Your task to perform on an android device: Turn off the flashlight Image 0: 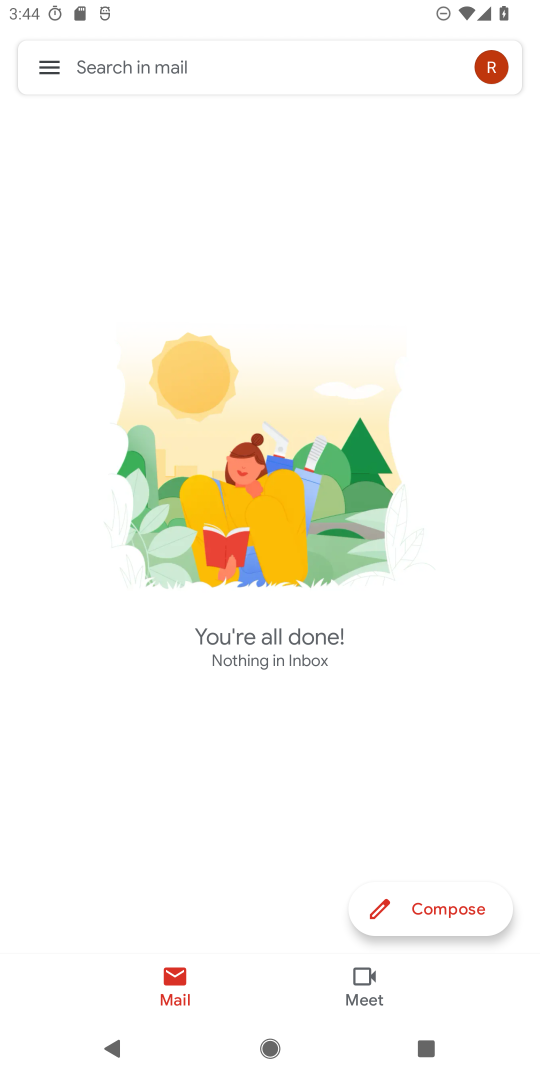
Step 0: press home button
Your task to perform on an android device: Turn off the flashlight Image 1: 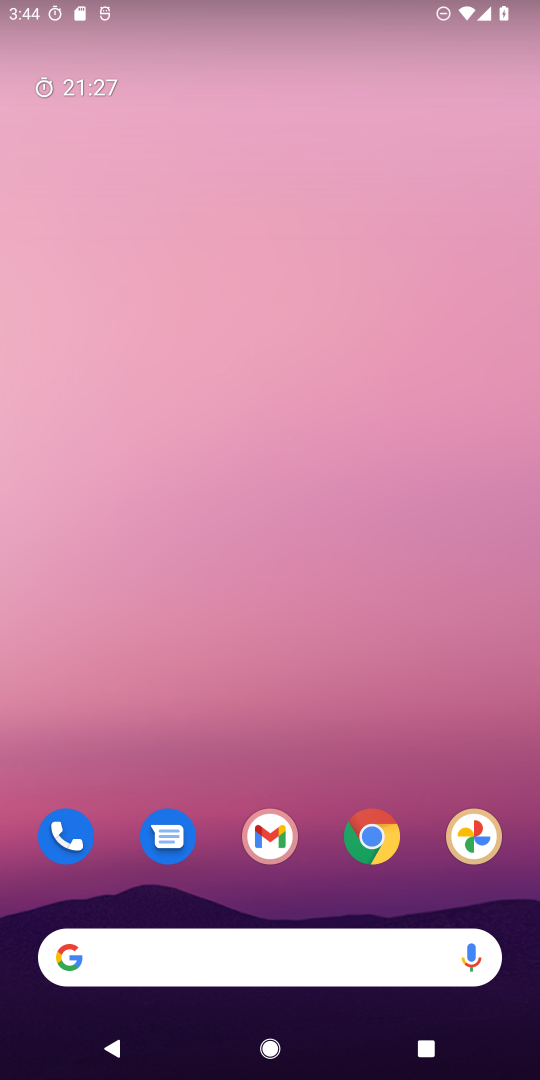
Step 1: drag from (271, 866) to (270, 65)
Your task to perform on an android device: Turn off the flashlight Image 2: 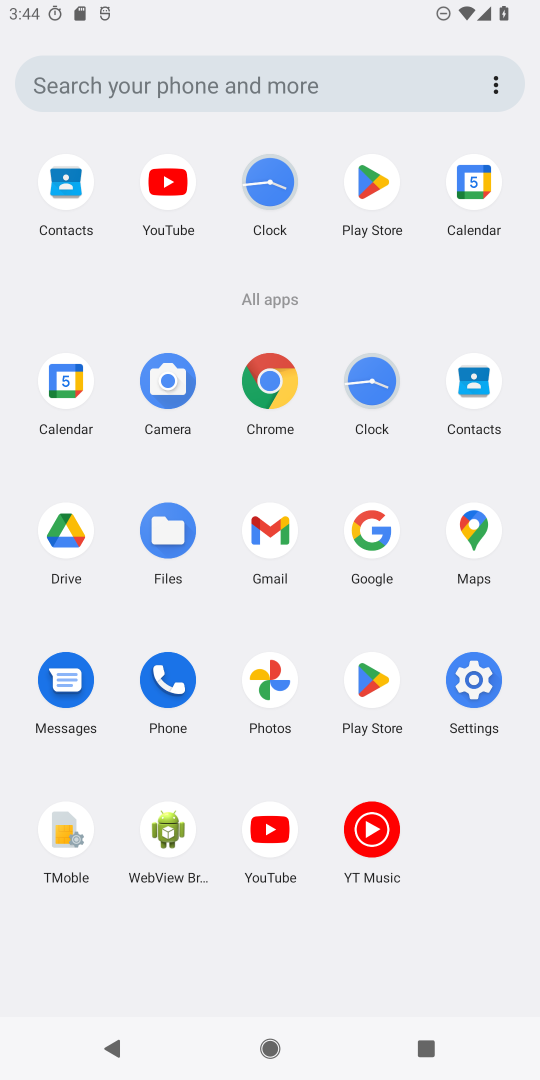
Step 2: click (475, 719)
Your task to perform on an android device: Turn off the flashlight Image 3: 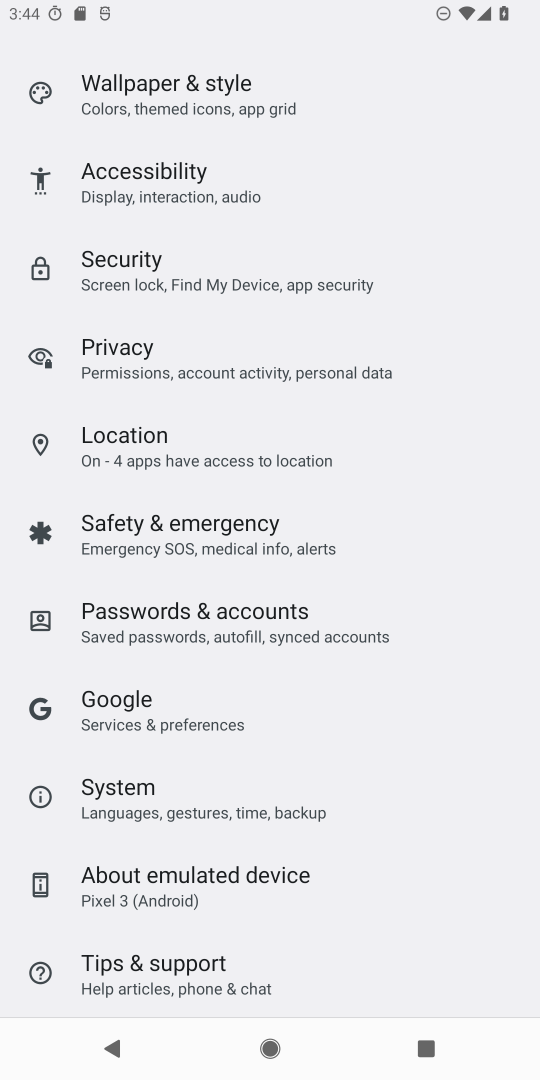
Step 3: drag from (283, 223) to (255, 871)
Your task to perform on an android device: Turn off the flashlight Image 4: 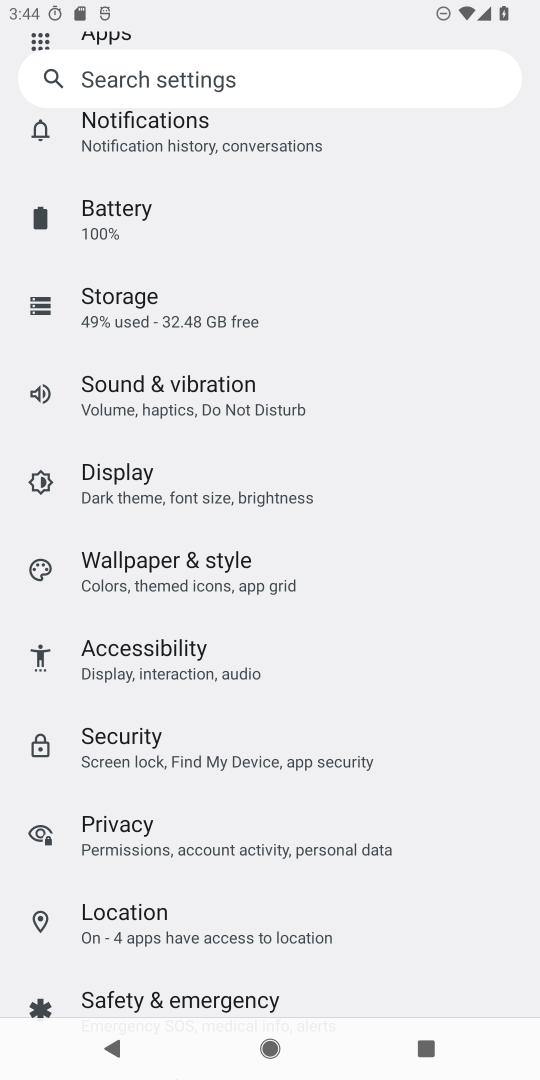
Step 4: click (258, 77)
Your task to perform on an android device: Turn off the flashlight Image 5: 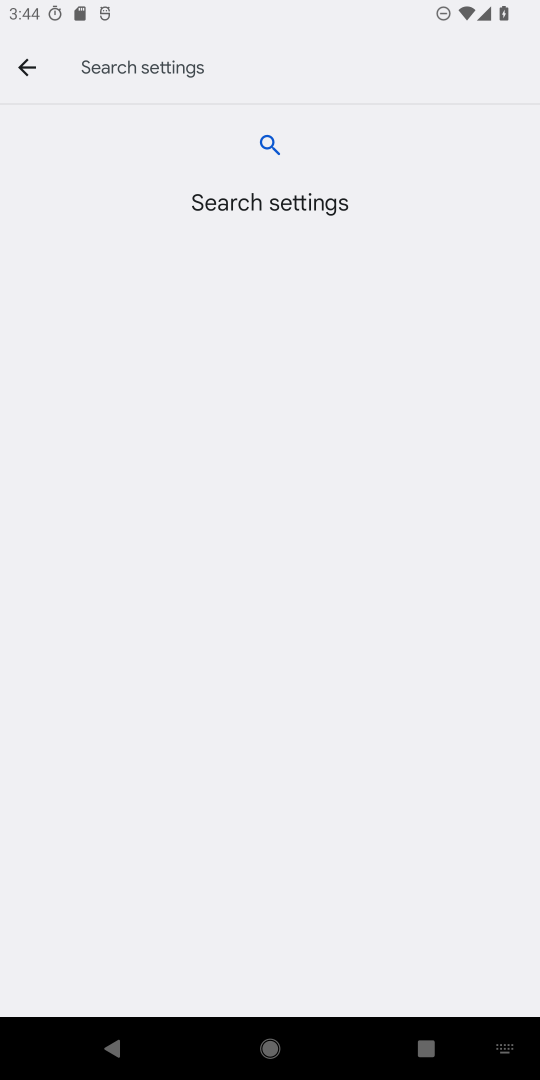
Step 5: type "flashlight"
Your task to perform on an android device: Turn off the flashlight Image 6: 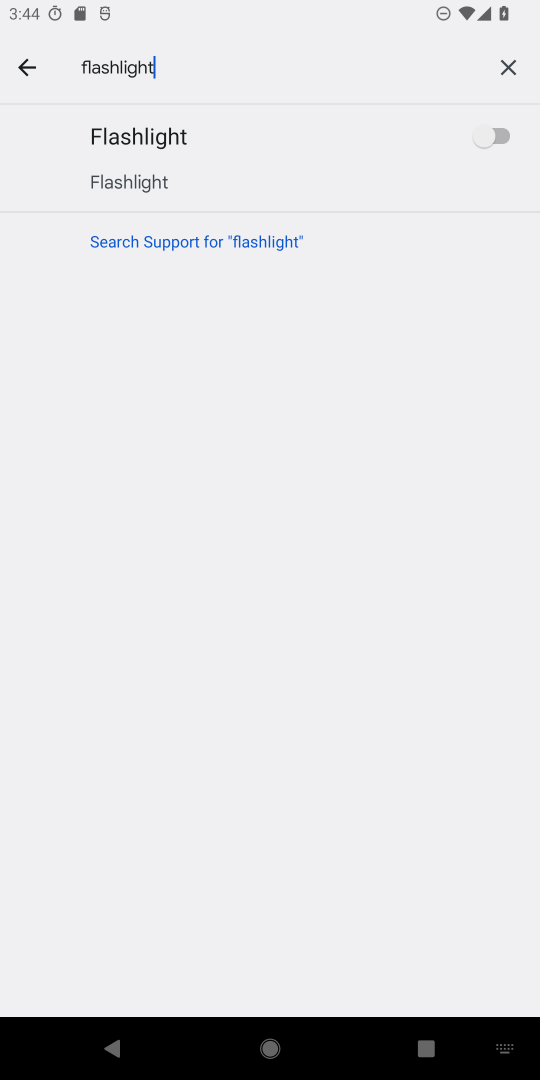
Step 6: task complete